Your task to perform on an android device: Add "razer nari" to the cart on newegg.com Image 0: 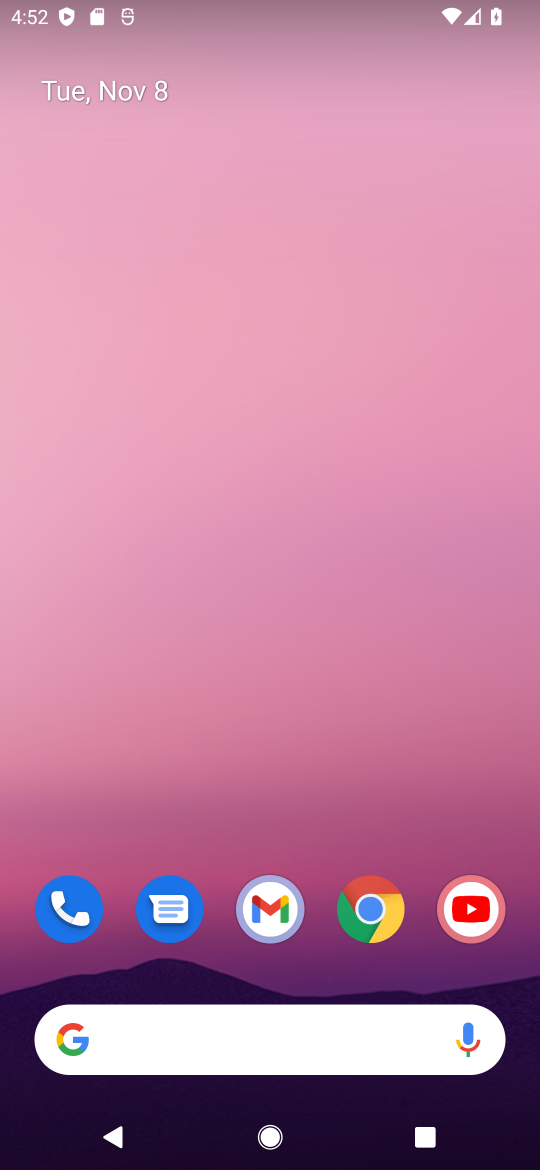
Step 0: click (376, 891)
Your task to perform on an android device: Add "razer nari" to the cart on newegg.com Image 1: 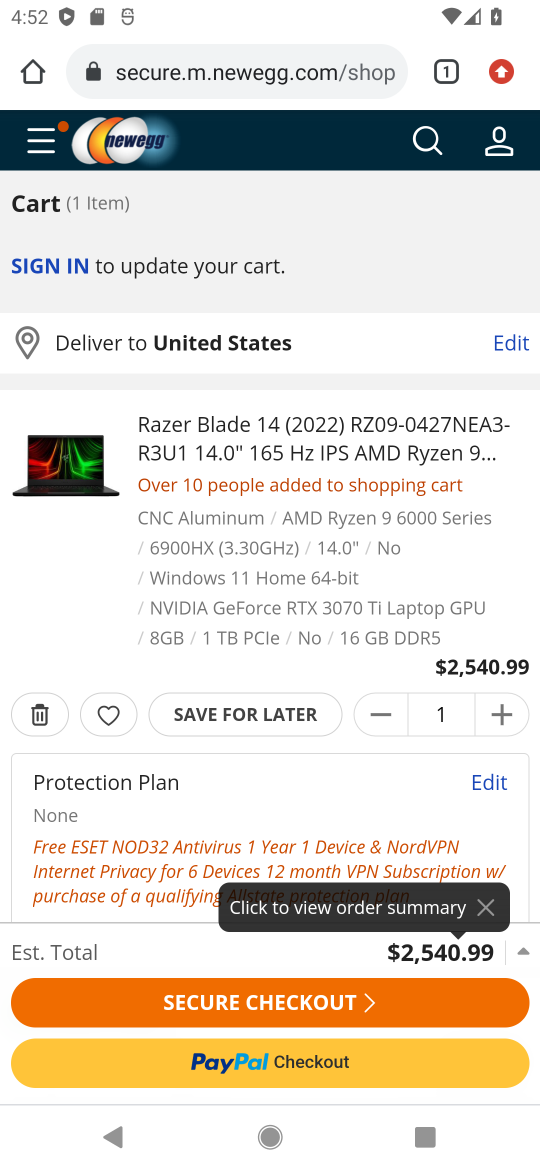
Step 1: click (419, 140)
Your task to perform on an android device: Add "razer nari" to the cart on newegg.com Image 2: 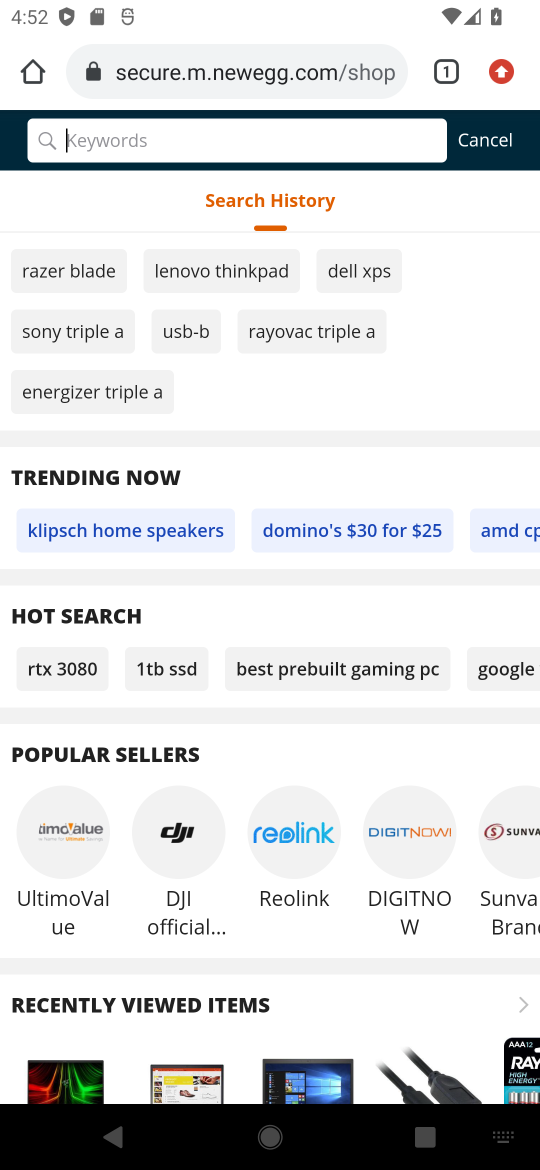
Step 2: click (141, 135)
Your task to perform on an android device: Add "razer nari" to the cart on newegg.com Image 3: 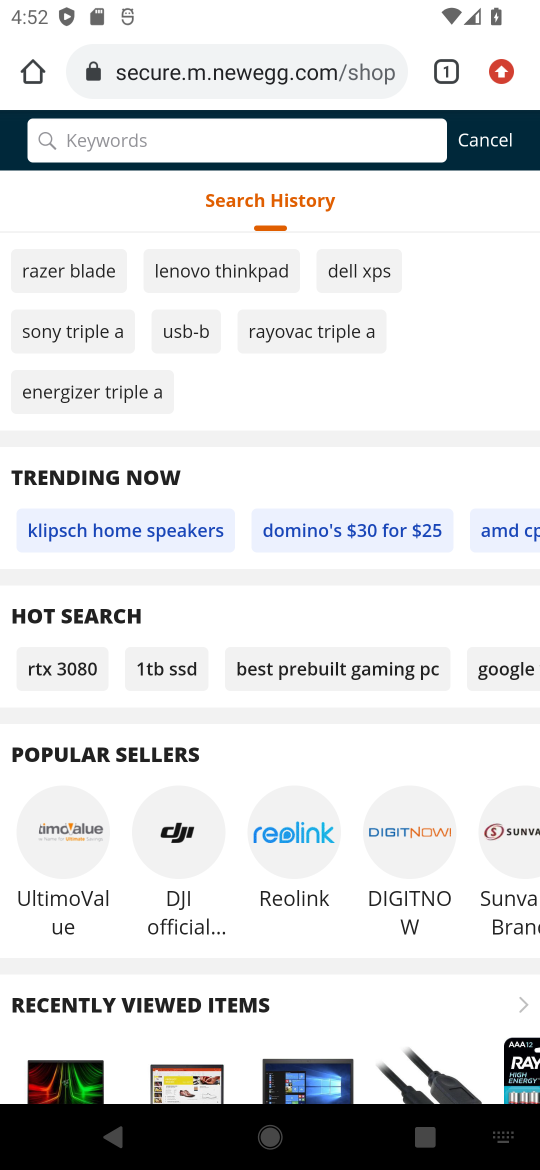
Step 3: type "razer nari"
Your task to perform on an android device: Add "razer nari" to the cart on newegg.com Image 4: 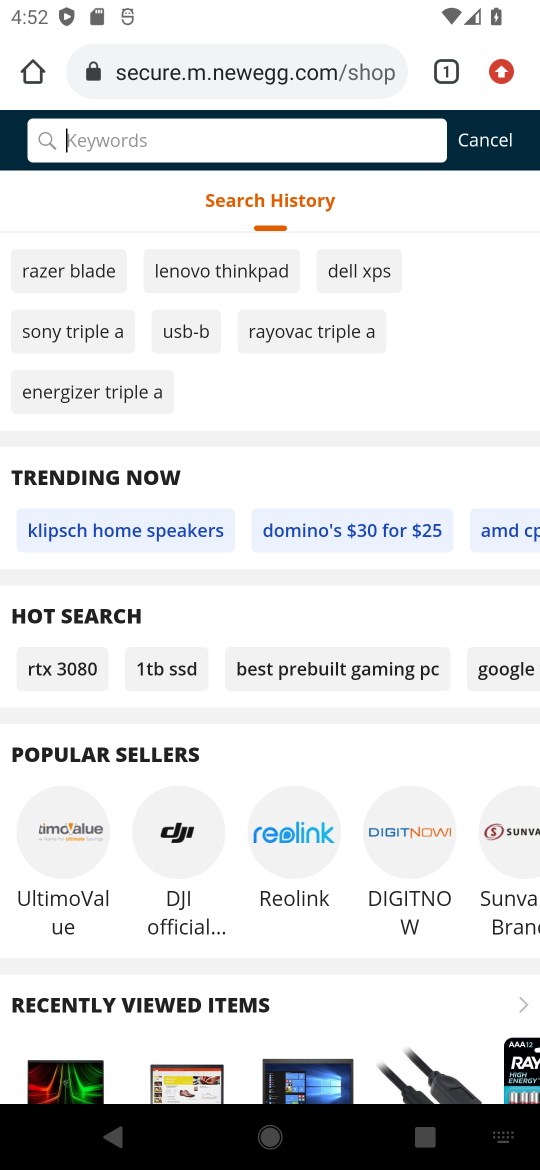
Step 4: press enter
Your task to perform on an android device: Add "razer nari" to the cart on newegg.com Image 5: 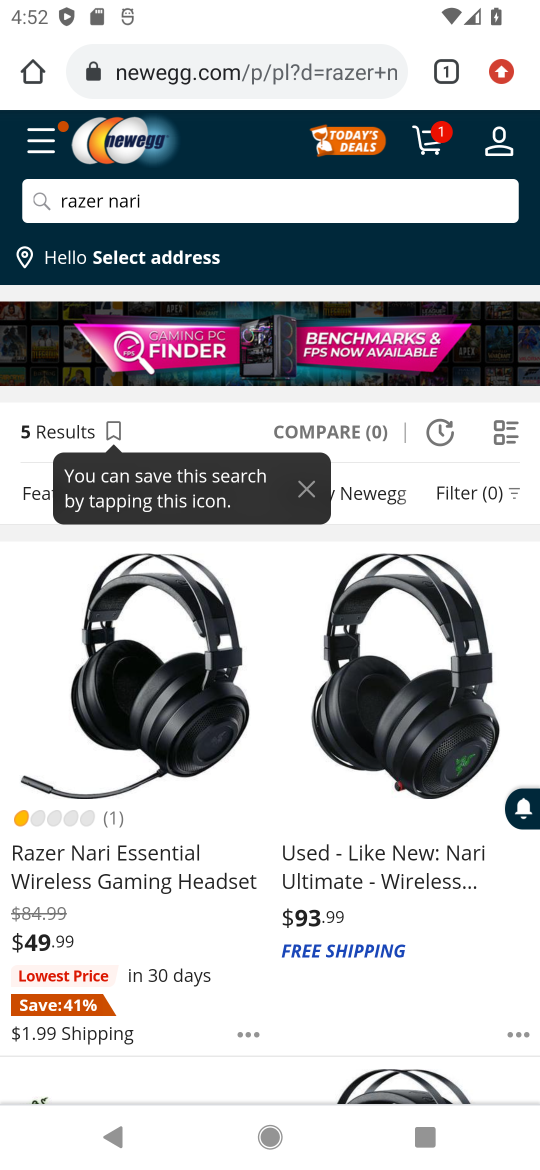
Step 5: click (147, 840)
Your task to perform on an android device: Add "razer nari" to the cart on newegg.com Image 6: 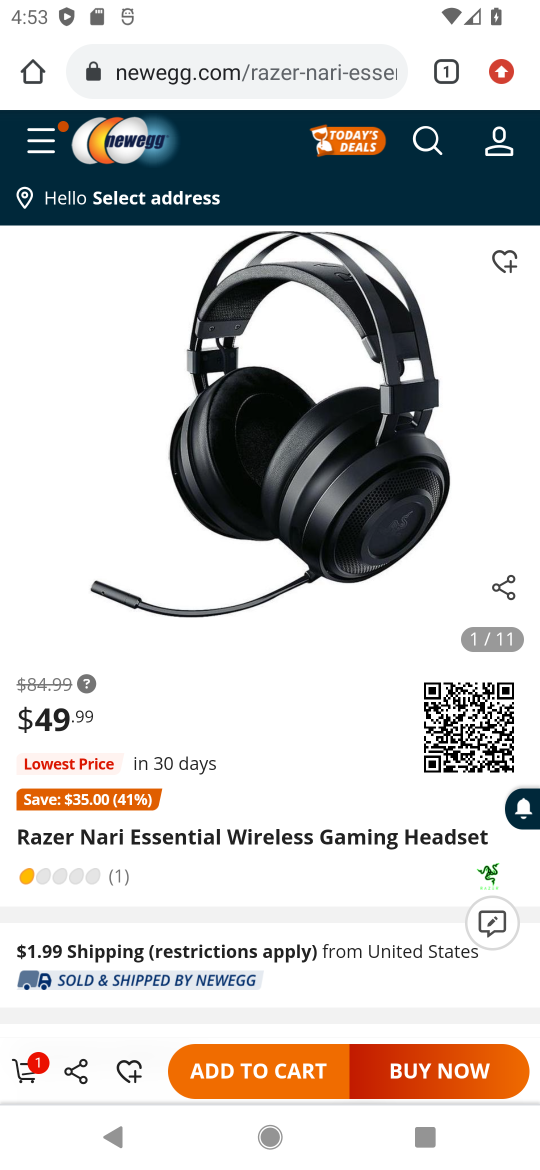
Step 6: click (281, 1073)
Your task to perform on an android device: Add "razer nari" to the cart on newegg.com Image 7: 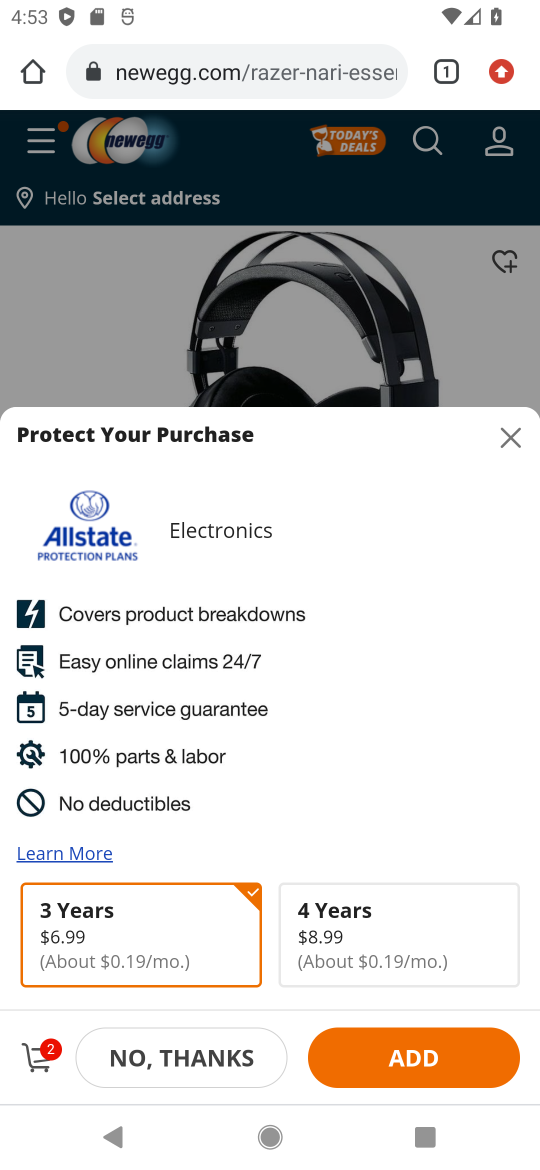
Step 7: click (47, 1051)
Your task to perform on an android device: Add "razer nari" to the cart on newegg.com Image 8: 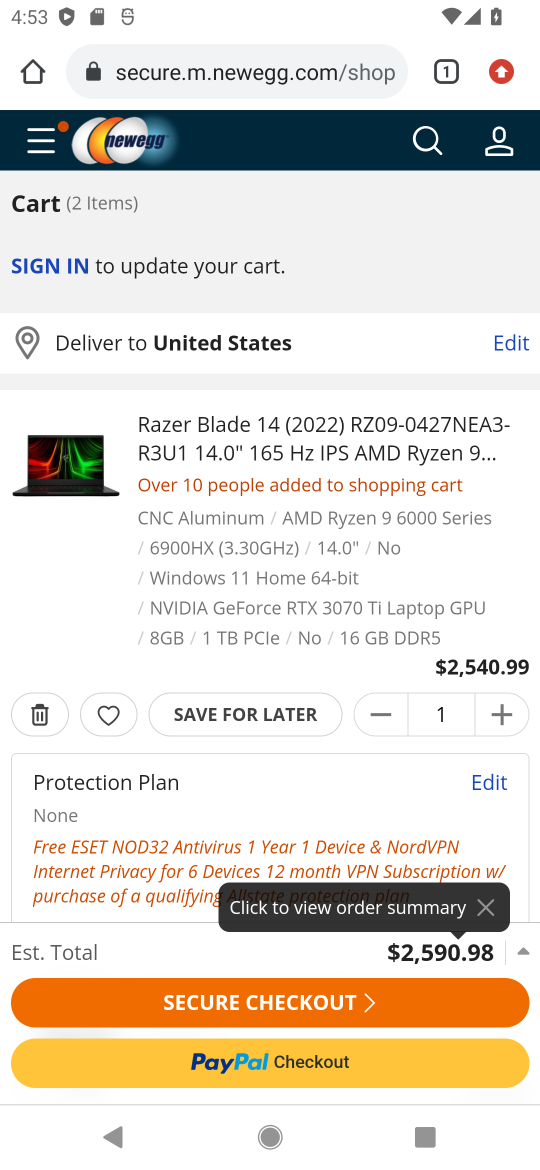
Step 8: task complete